Your task to perform on an android device: Search for vegetarian restaurants on Maps Image 0: 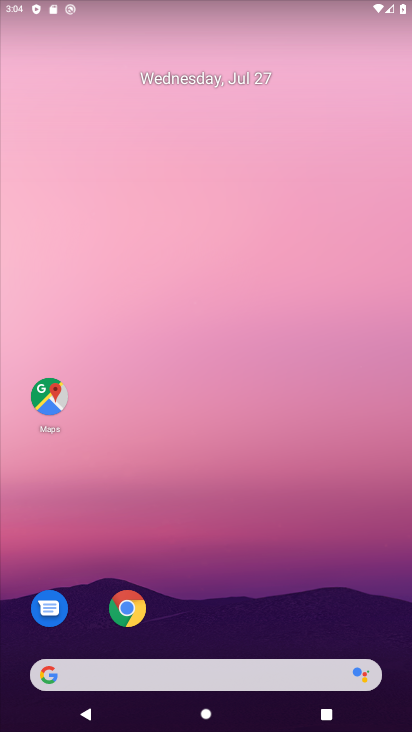
Step 0: click (41, 410)
Your task to perform on an android device: Search for vegetarian restaurants on Maps Image 1: 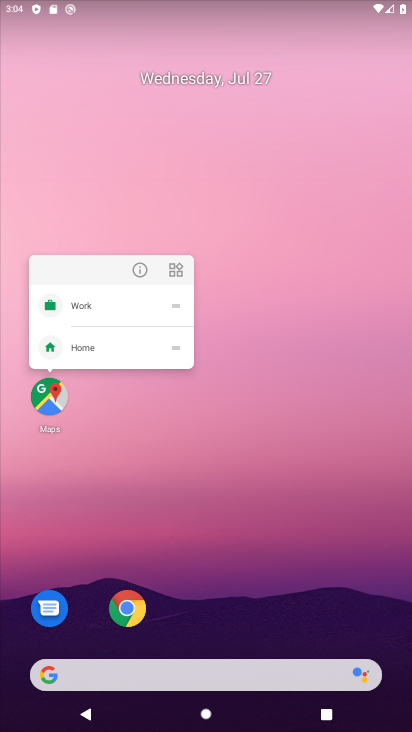
Step 1: click (53, 400)
Your task to perform on an android device: Search for vegetarian restaurants on Maps Image 2: 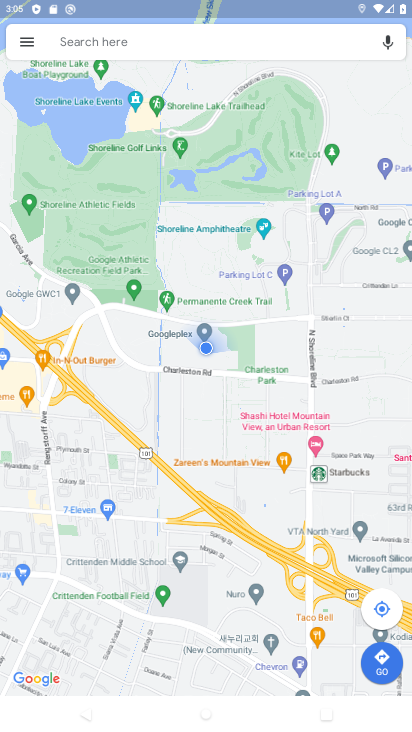
Step 2: click (139, 35)
Your task to perform on an android device: Search for vegetarian restaurants on Maps Image 3: 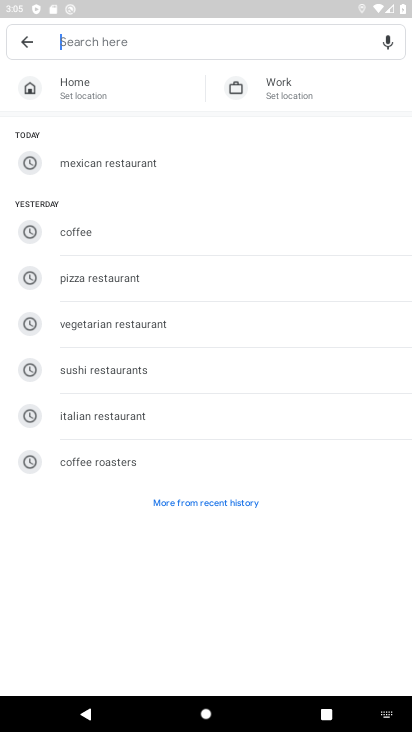
Step 3: type "vegetarian restaurants"
Your task to perform on an android device: Search for vegetarian restaurants on Maps Image 4: 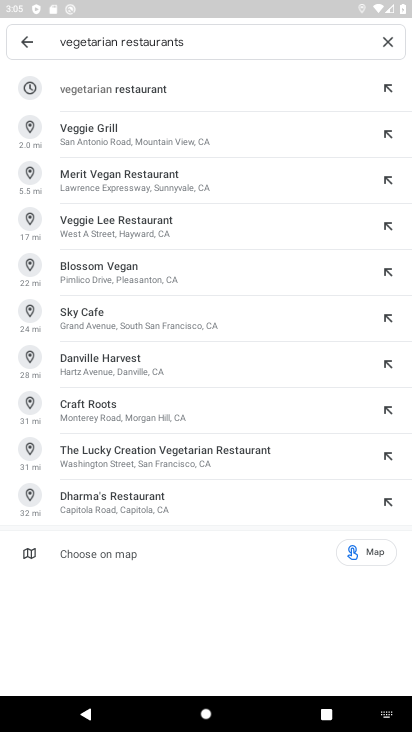
Step 4: click (140, 86)
Your task to perform on an android device: Search for vegetarian restaurants on Maps Image 5: 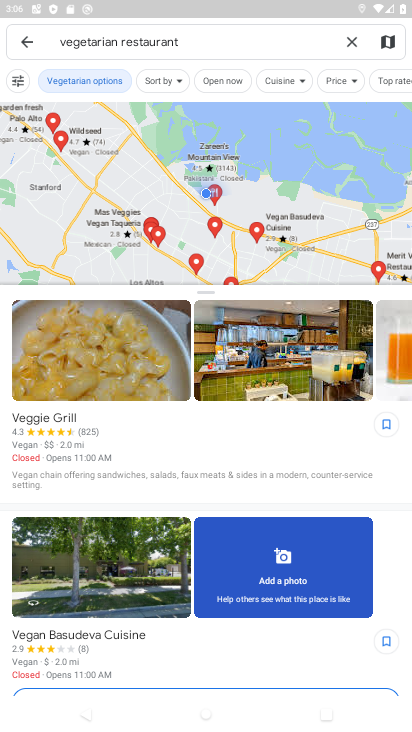
Step 5: task complete